Your task to perform on an android device: see tabs open on other devices in the chrome app Image 0: 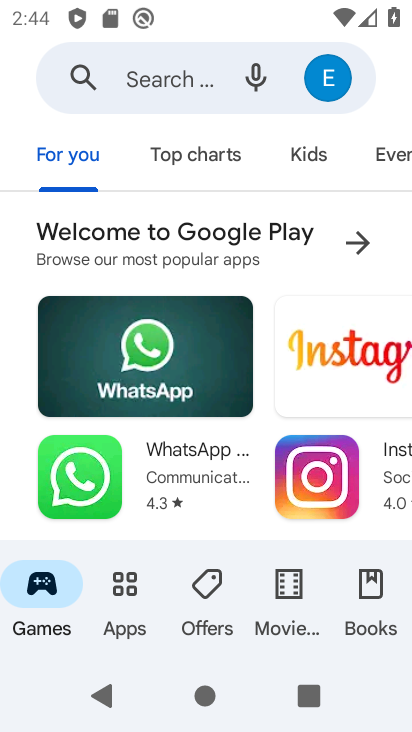
Step 0: press home button
Your task to perform on an android device: see tabs open on other devices in the chrome app Image 1: 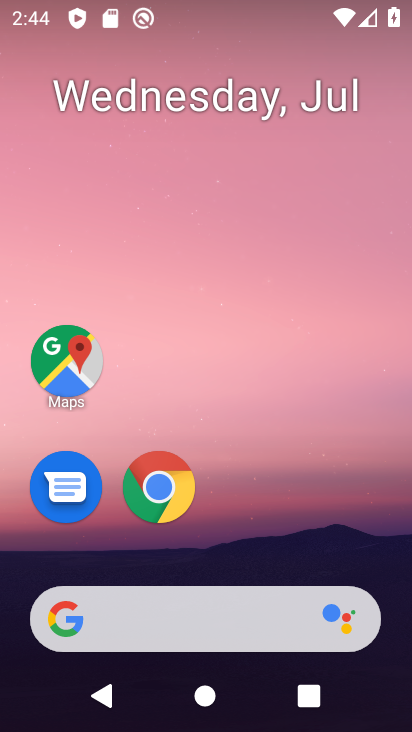
Step 1: click (188, 500)
Your task to perform on an android device: see tabs open on other devices in the chrome app Image 2: 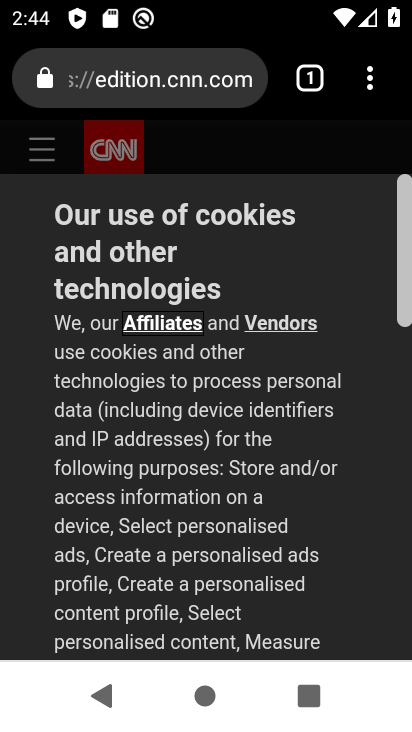
Step 2: click (367, 80)
Your task to perform on an android device: see tabs open on other devices in the chrome app Image 3: 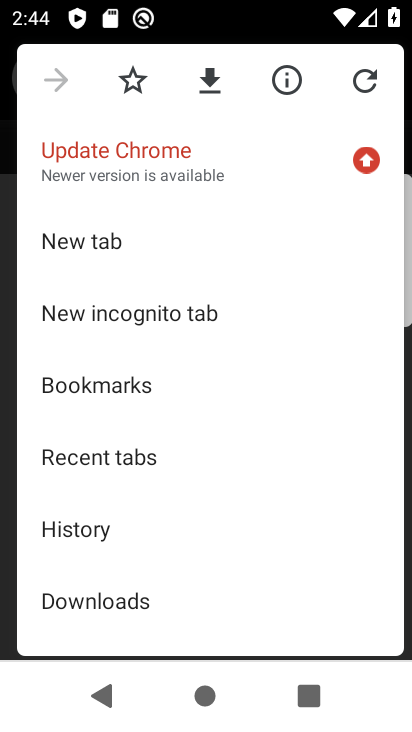
Step 3: click (182, 451)
Your task to perform on an android device: see tabs open on other devices in the chrome app Image 4: 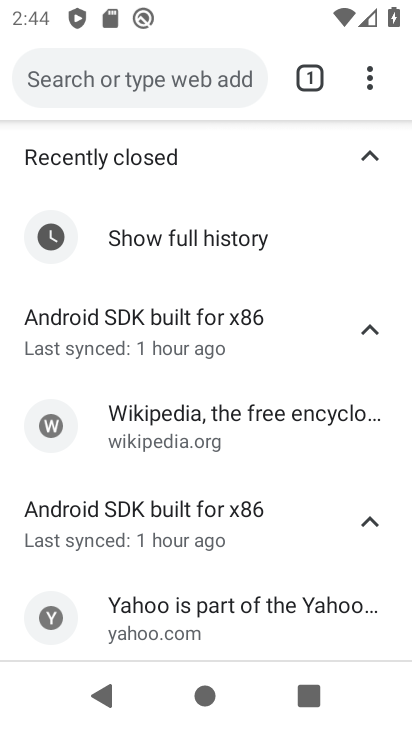
Step 4: task complete